Your task to perform on an android device: Go to CNN.com Image 0: 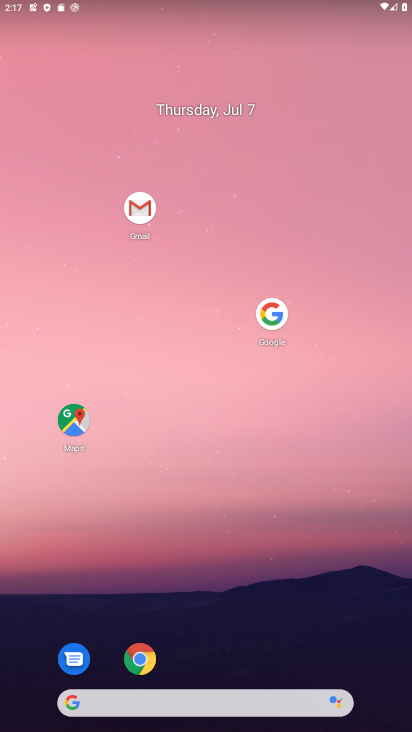
Step 0: click (277, 311)
Your task to perform on an android device: Go to CNN.com Image 1: 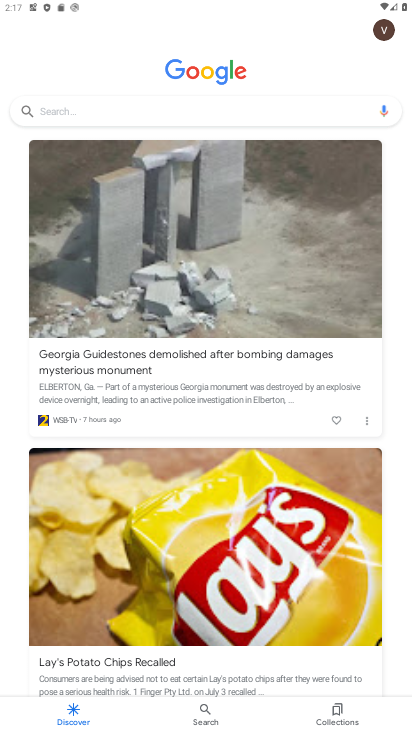
Step 1: click (128, 110)
Your task to perform on an android device: Go to CNN.com Image 2: 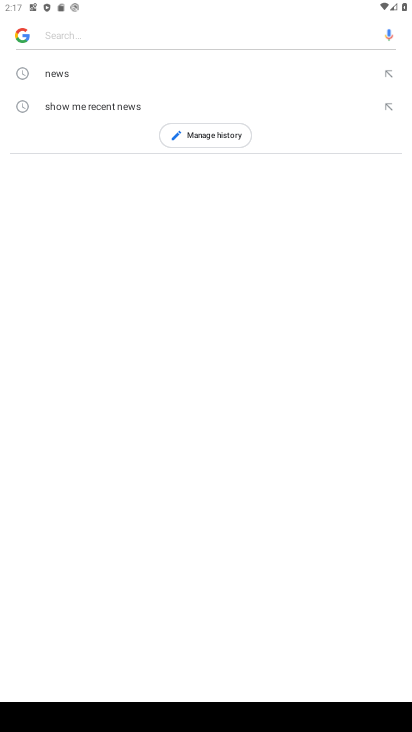
Step 2: type "cnn"
Your task to perform on an android device: Go to CNN.com Image 3: 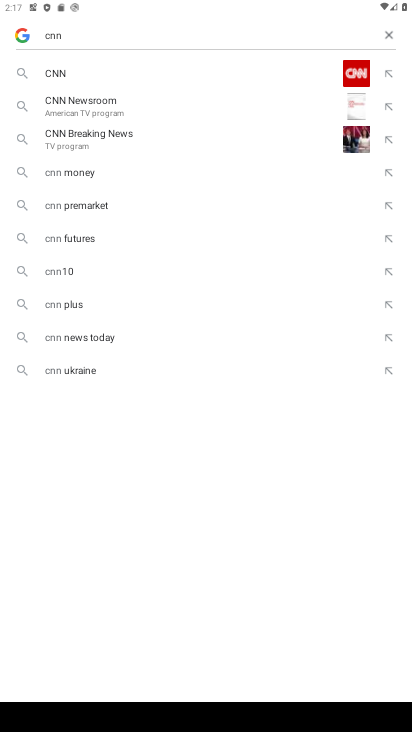
Step 3: click (83, 66)
Your task to perform on an android device: Go to CNN.com Image 4: 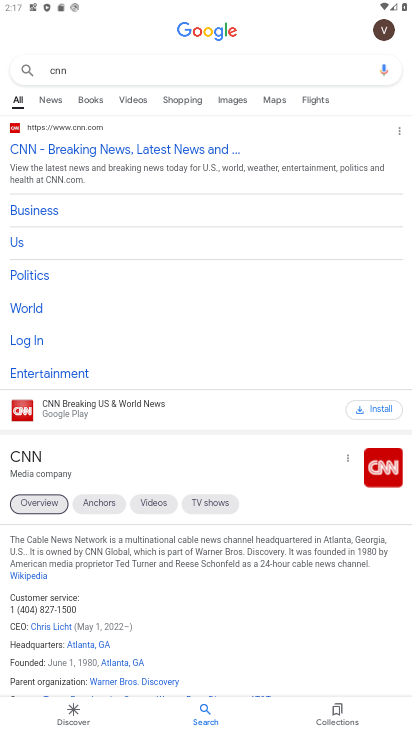
Step 4: click (71, 143)
Your task to perform on an android device: Go to CNN.com Image 5: 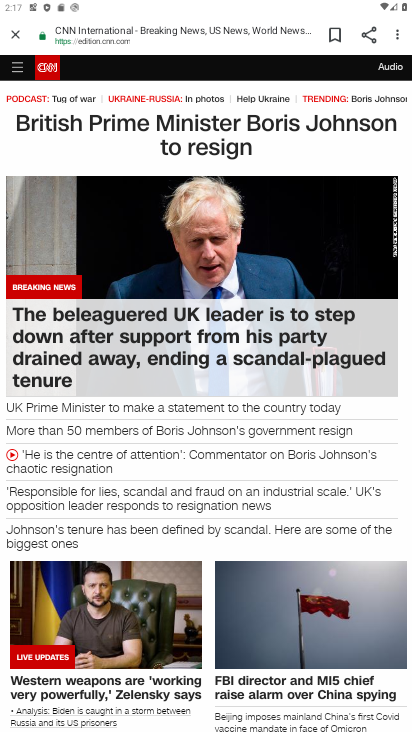
Step 5: task complete